Your task to perform on an android device: allow notifications from all sites in the chrome app Image 0: 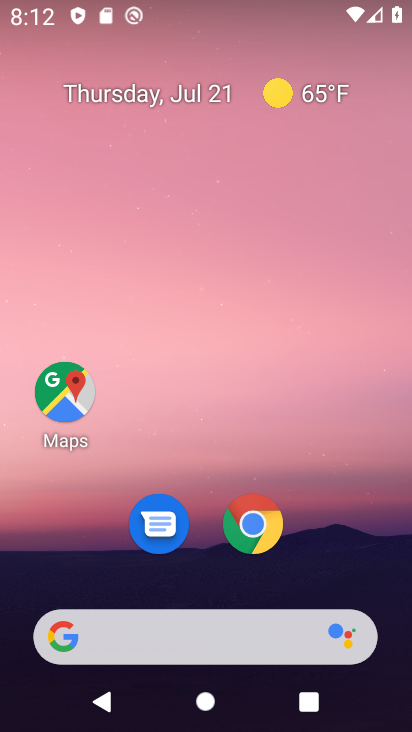
Step 0: drag from (199, 634) to (209, 146)
Your task to perform on an android device: allow notifications from all sites in the chrome app Image 1: 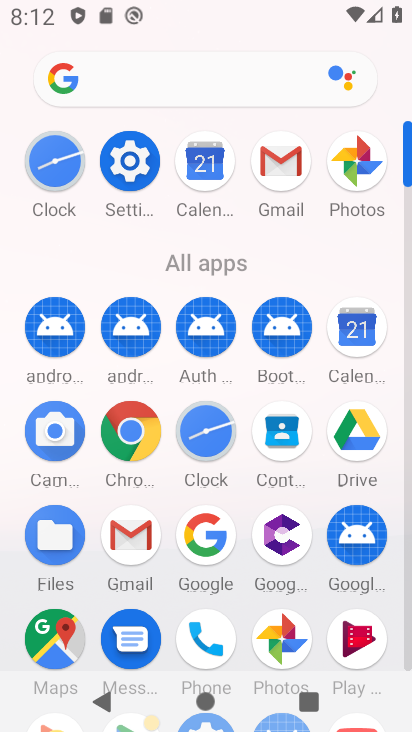
Step 1: click (128, 448)
Your task to perform on an android device: allow notifications from all sites in the chrome app Image 2: 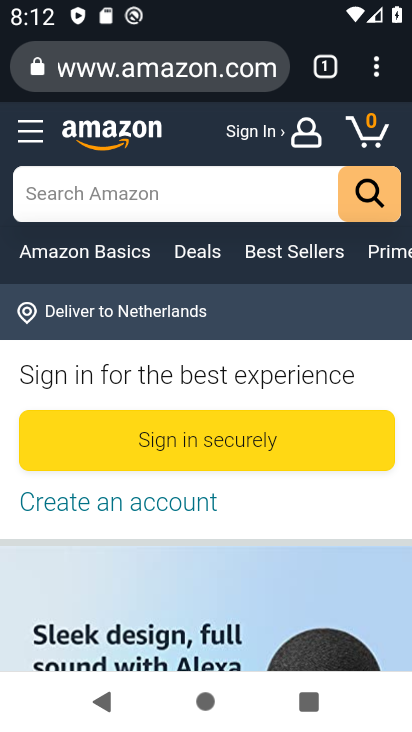
Step 2: drag from (379, 64) to (190, 529)
Your task to perform on an android device: allow notifications from all sites in the chrome app Image 3: 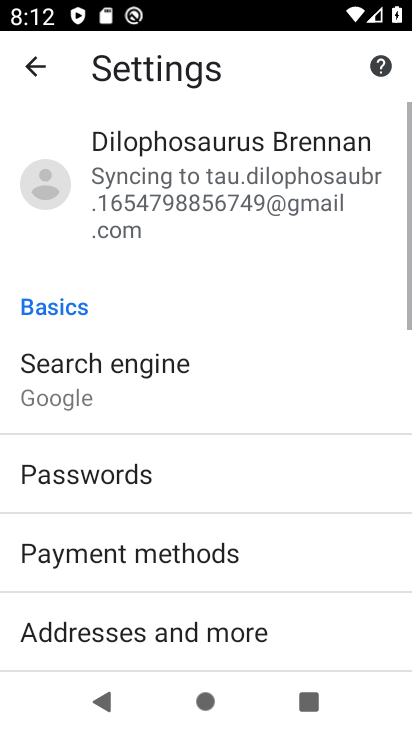
Step 3: drag from (131, 525) to (173, 93)
Your task to perform on an android device: allow notifications from all sites in the chrome app Image 4: 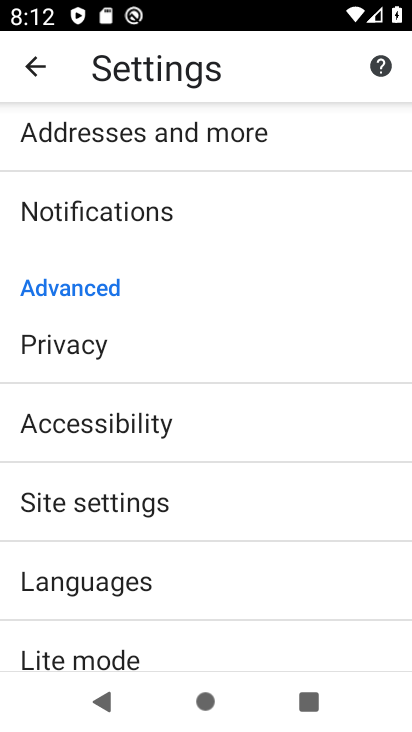
Step 4: click (96, 531)
Your task to perform on an android device: allow notifications from all sites in the chrome app Image 5: 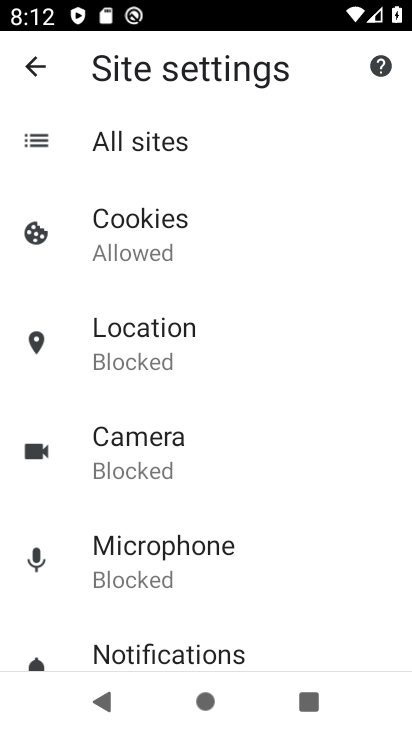
Step 5: click (168, 653)
Your task to perform on an android device: allow notifications from all sites in the chrome app Image 6: 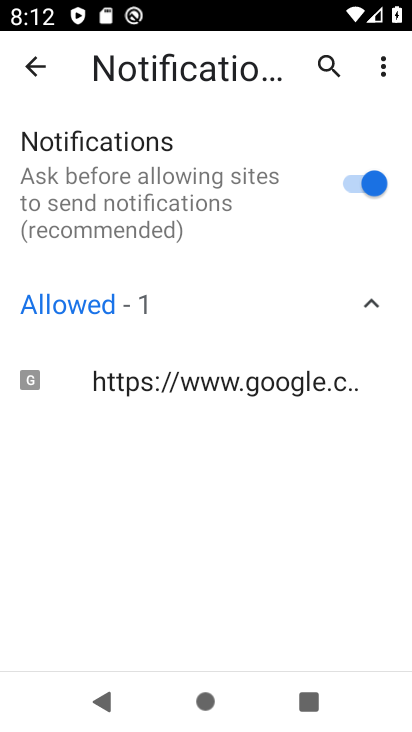
Step 6: task complete